Your task to perform on an android device: allow notifications from all sites in the chrome app Image 0: 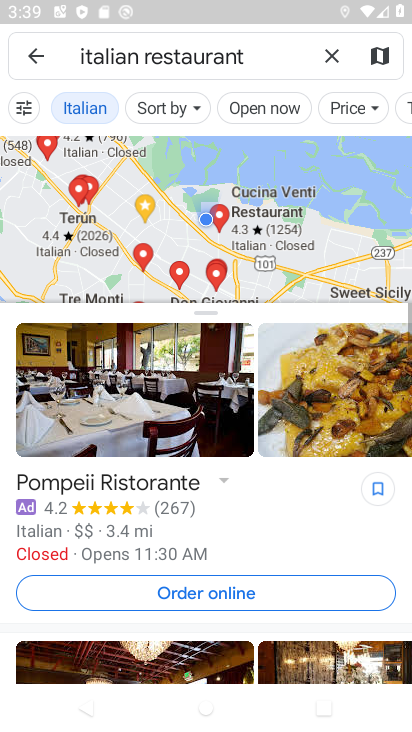
Step 0: press home button
Your task to perform on an android device: allow notifications from all sites in the chrome app Image 1: 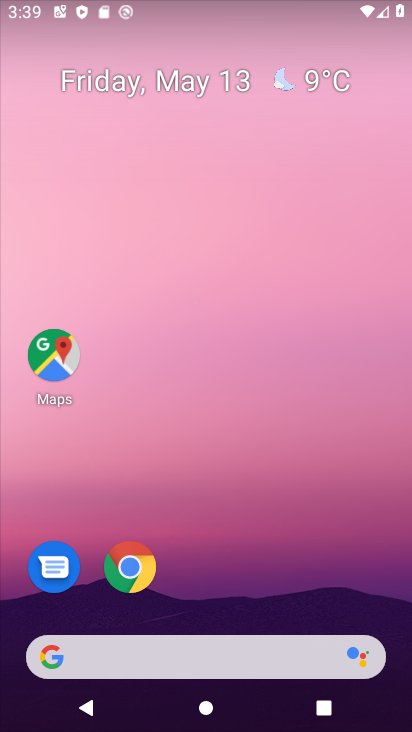
Step 1: click (135, 567)
Your task to perform on an android device: allow notifications from all sites in the chrome app Image 2: 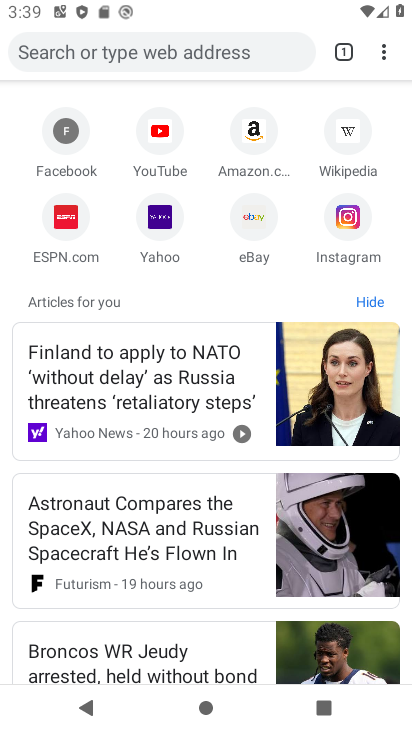
Step 2: click (374, 63)
Your task to perform on an android device: allow notifications from all sites in the chrome app Image 3: 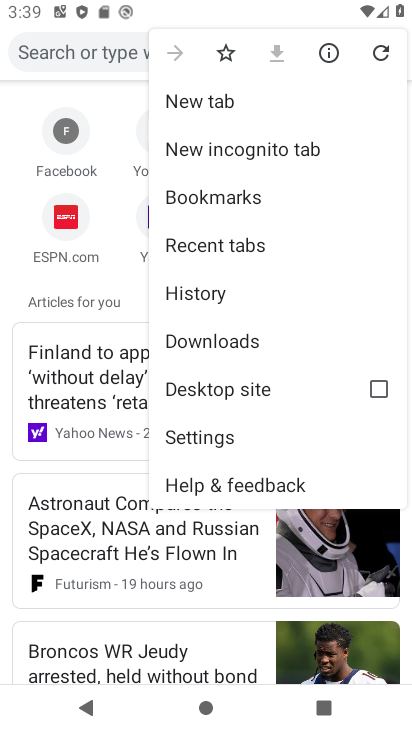
Step 3: click (187, 433)
Your task to perform on an android device: allow notifications from all sites in the chrome app Image 4: 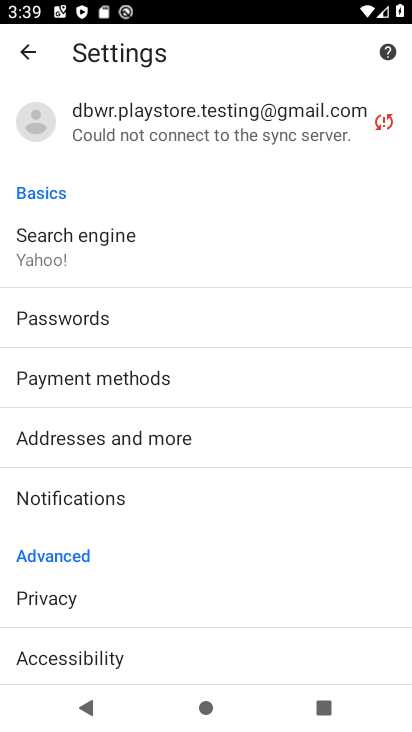
Step 4: drag from (149, 627) to (144, 146)
Your task to perform on an android device: allow notifications from all sites in the chrome app Image 5: 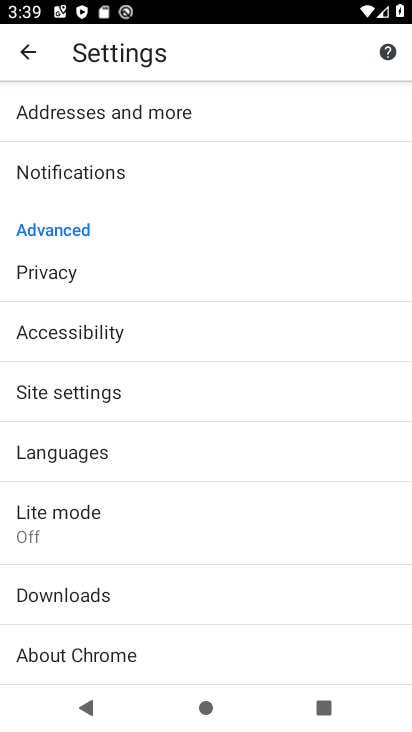
Step 5: click (102, 397)
Your task to perform on an android device: allow notifications from all sites in the chrome app Image 6: 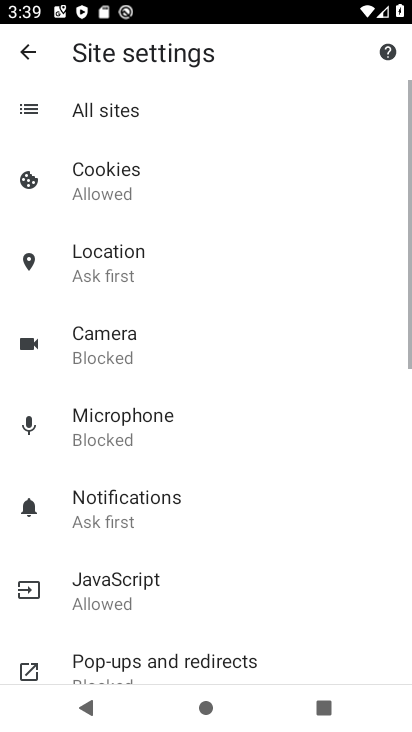
Step 6: click (160, 515)
Your task to perform on an android device: allow notifications from all sites in the chrome app Image 7: 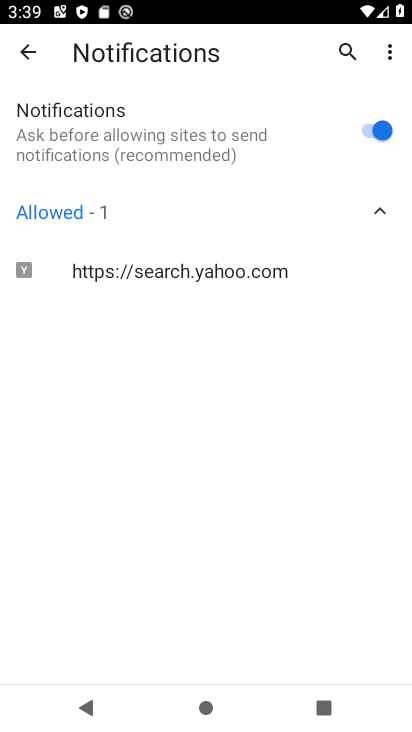
Step 7: task complete